Your task to perform on an android device: open wifi settings Image 0: 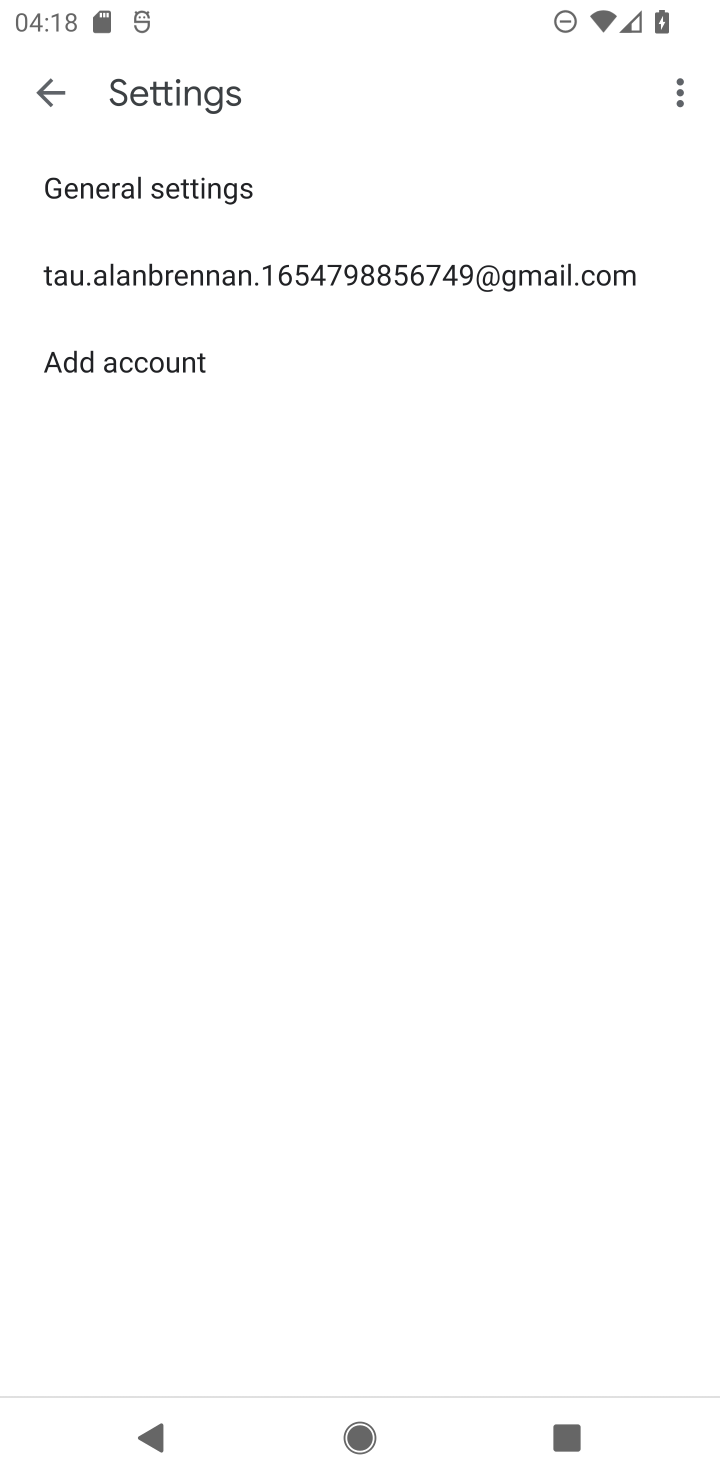
Step 0: press home button
Your task to perform on an android device: open wifi settings Image 1: 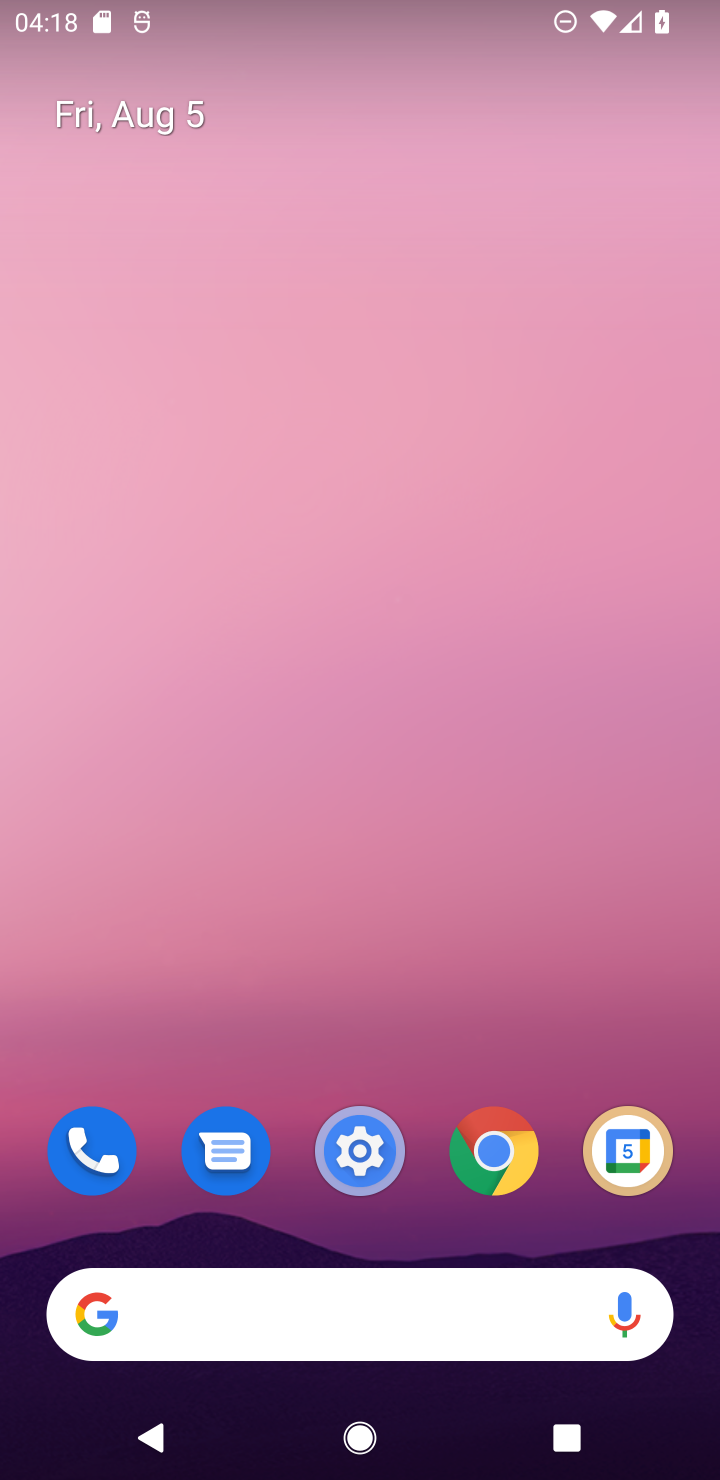
Step 1: click (391, 1131)
Your task to perform on an android device: open wifi settings Image 2: 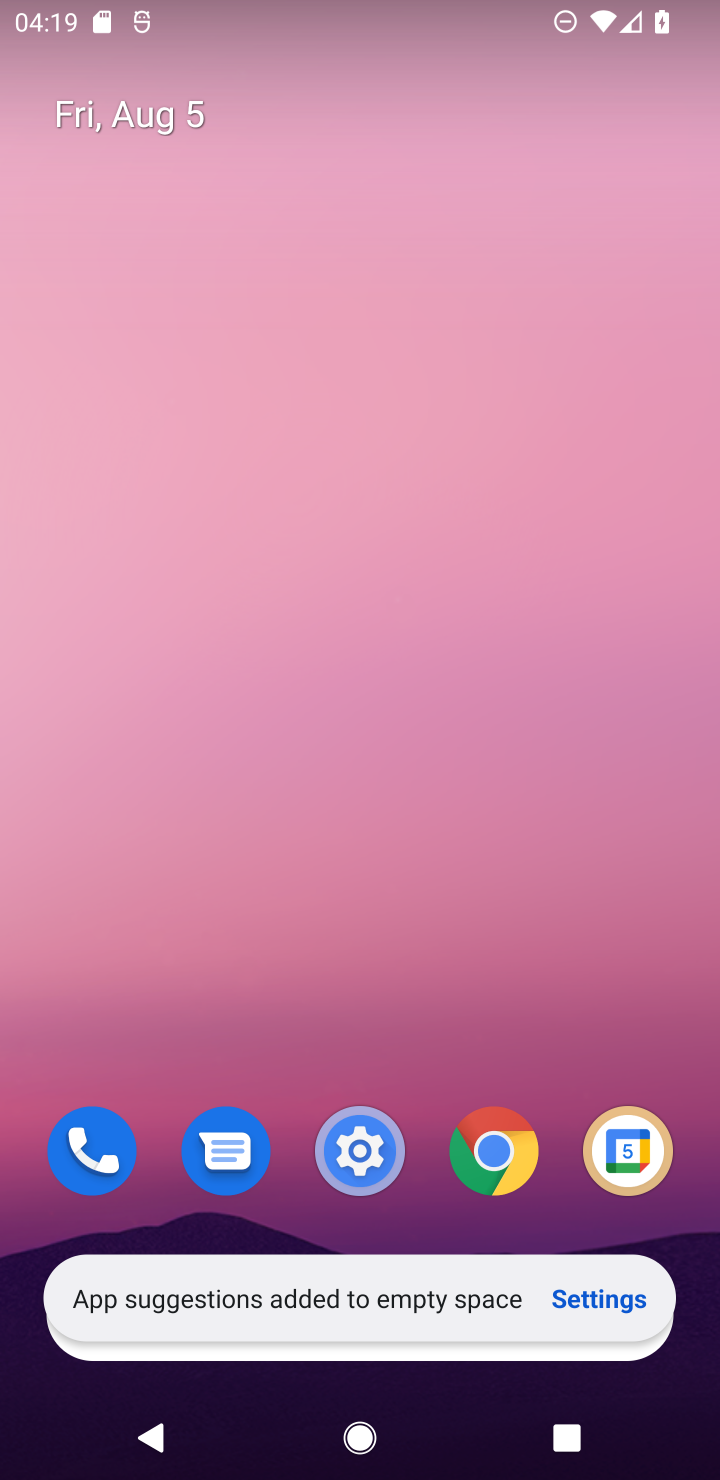
Step 2: click (361, 1141)
Your task to perform on an android device: open wifi settings Image 3: 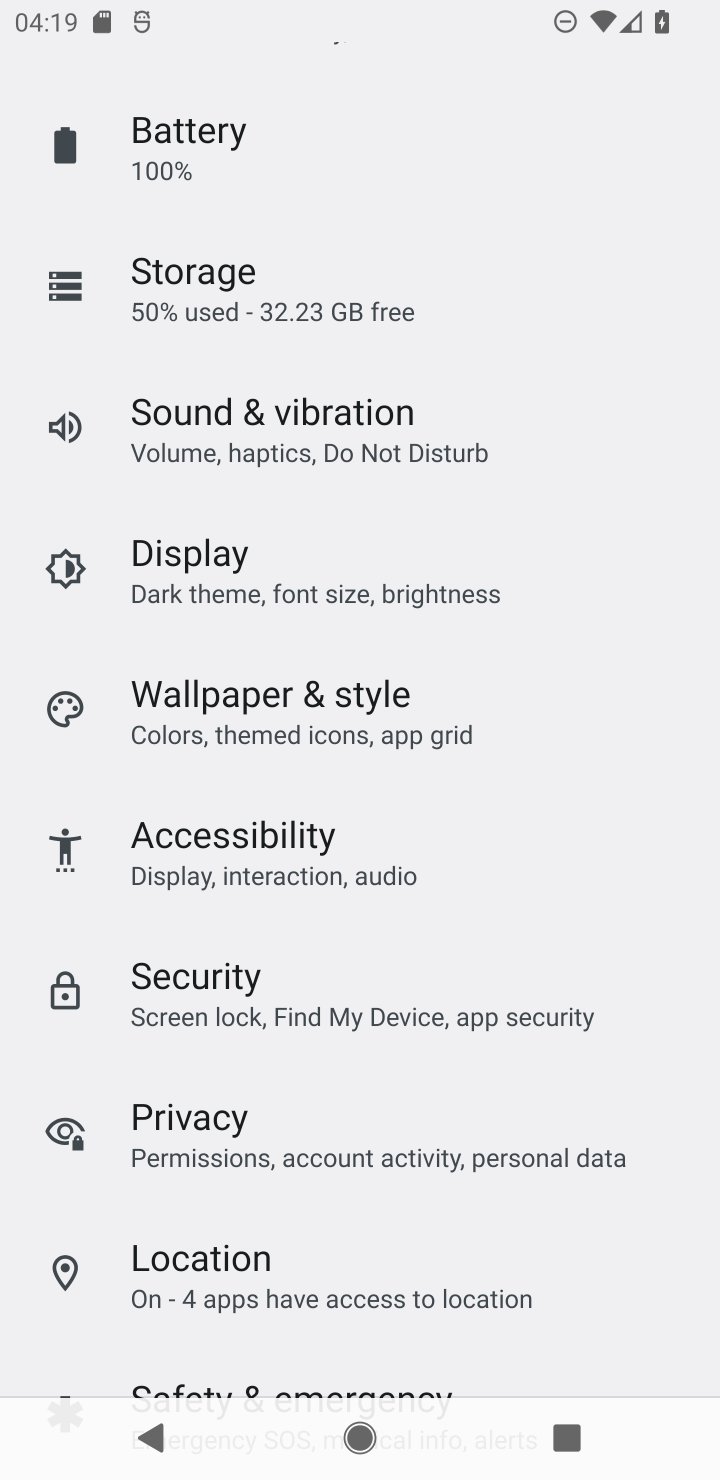
Step 3: drag from (192, 229) to (226, 682)
Your task to perform on an android device: open wifi settings Image 4: 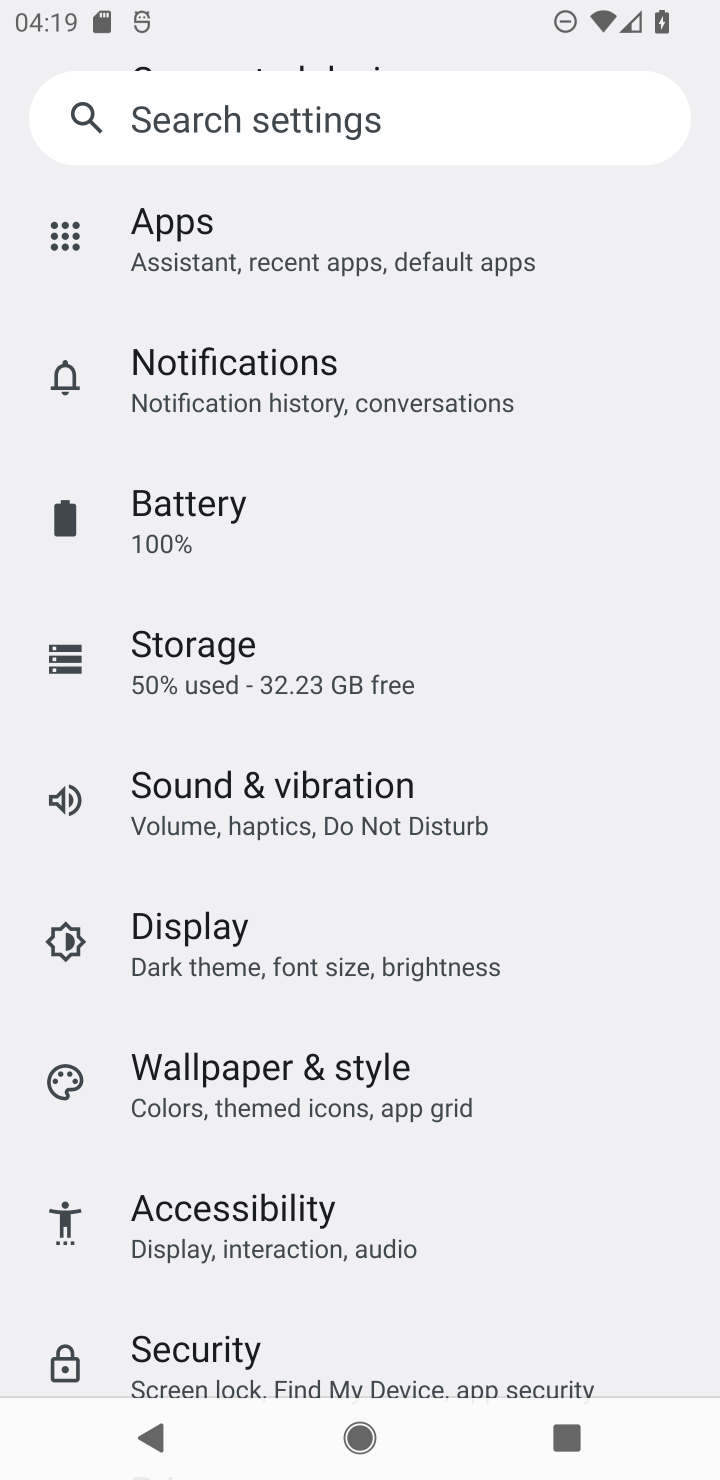
Step 4: drag from (266, 324) to (394, 1072)
Your task to perform on an android device: open wifi settings Image 5: 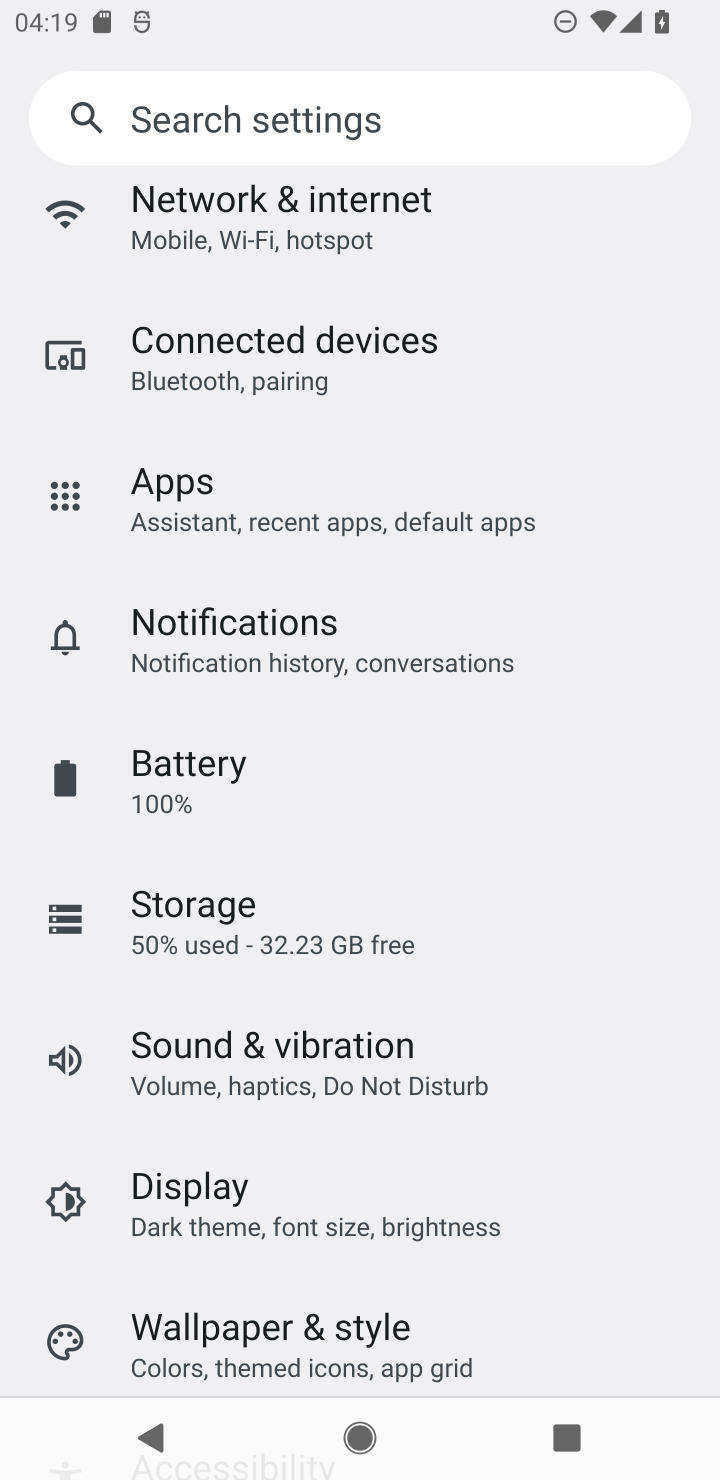
Step 5: click (319, 246)
Your task to perform on an android device: open wifi settings Image 6: 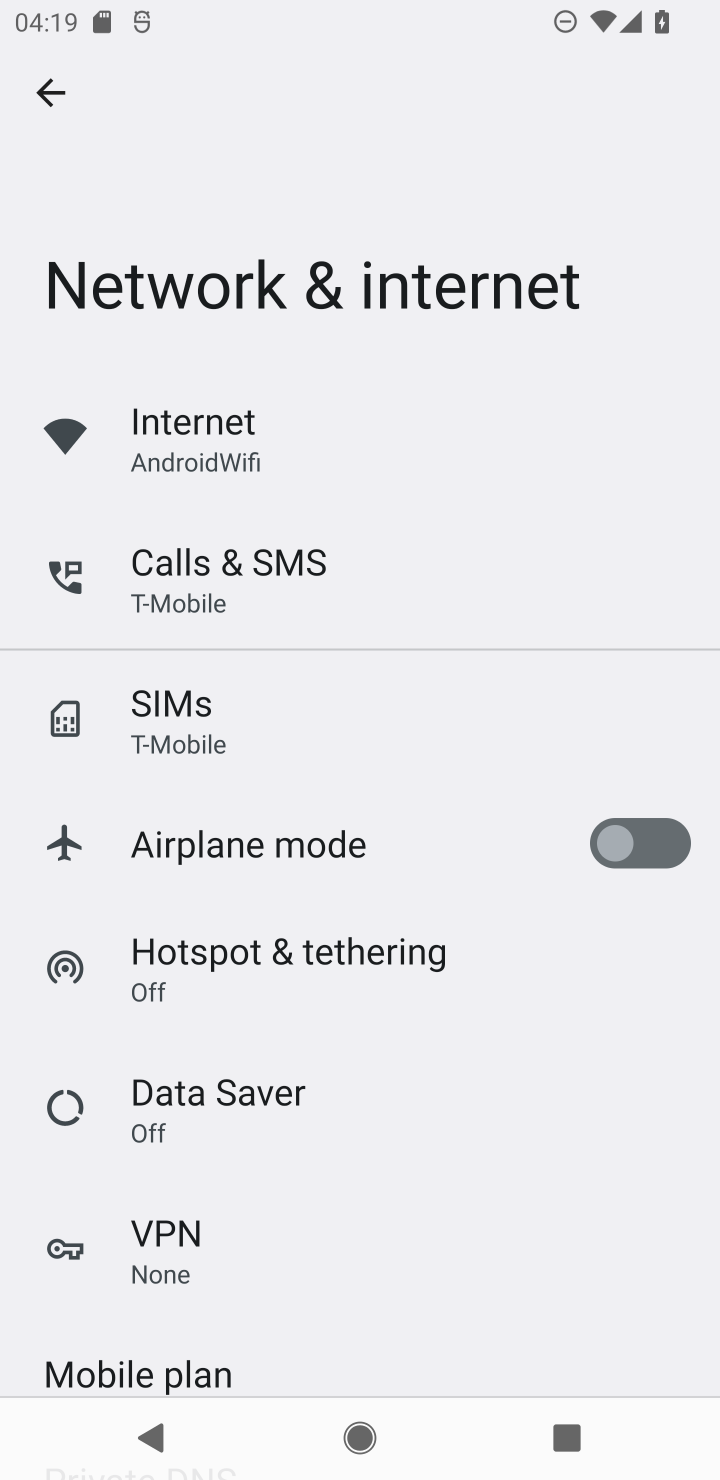
Step 6: click (269, 430)
Your task to perform on an android device: open wifi settings Image 7: 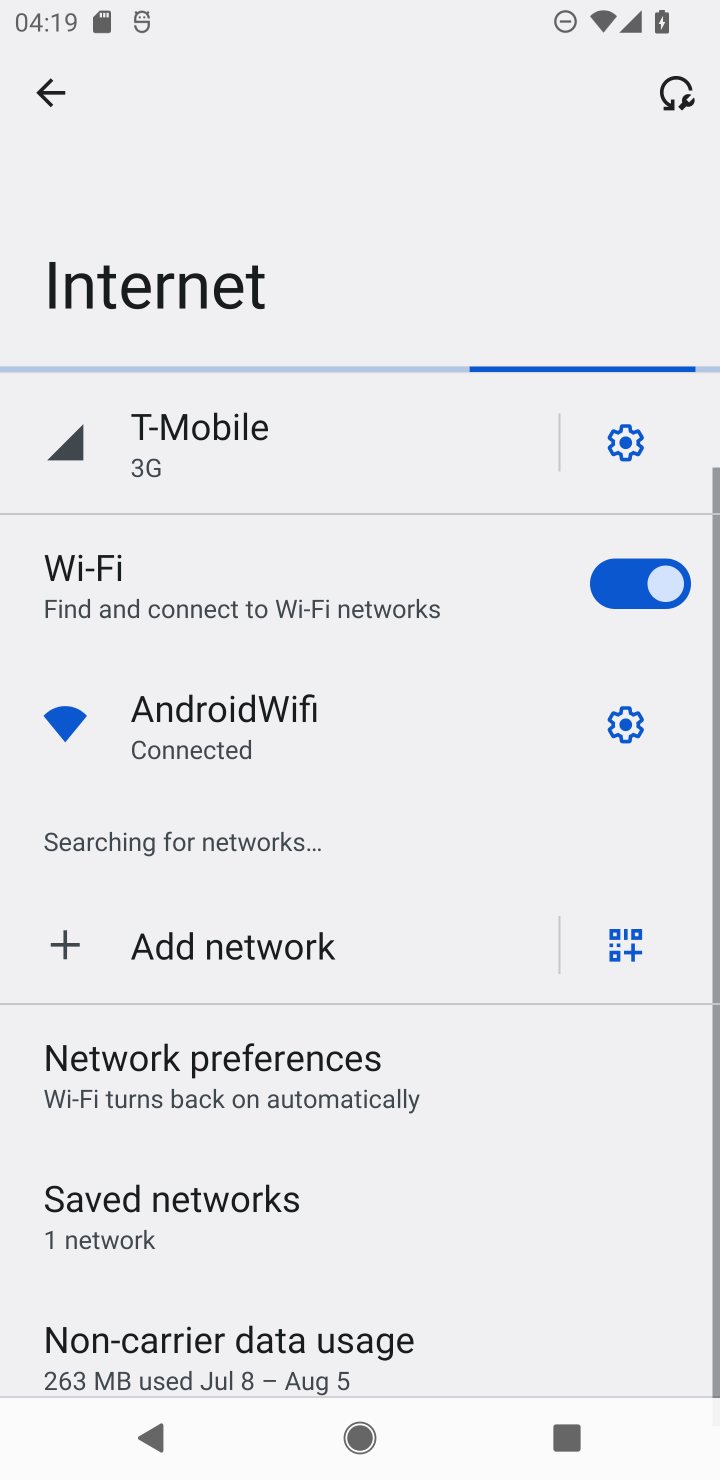
Step 7: click (632, 708)
Your task to perform on an android device: open wifi settings Image 8: 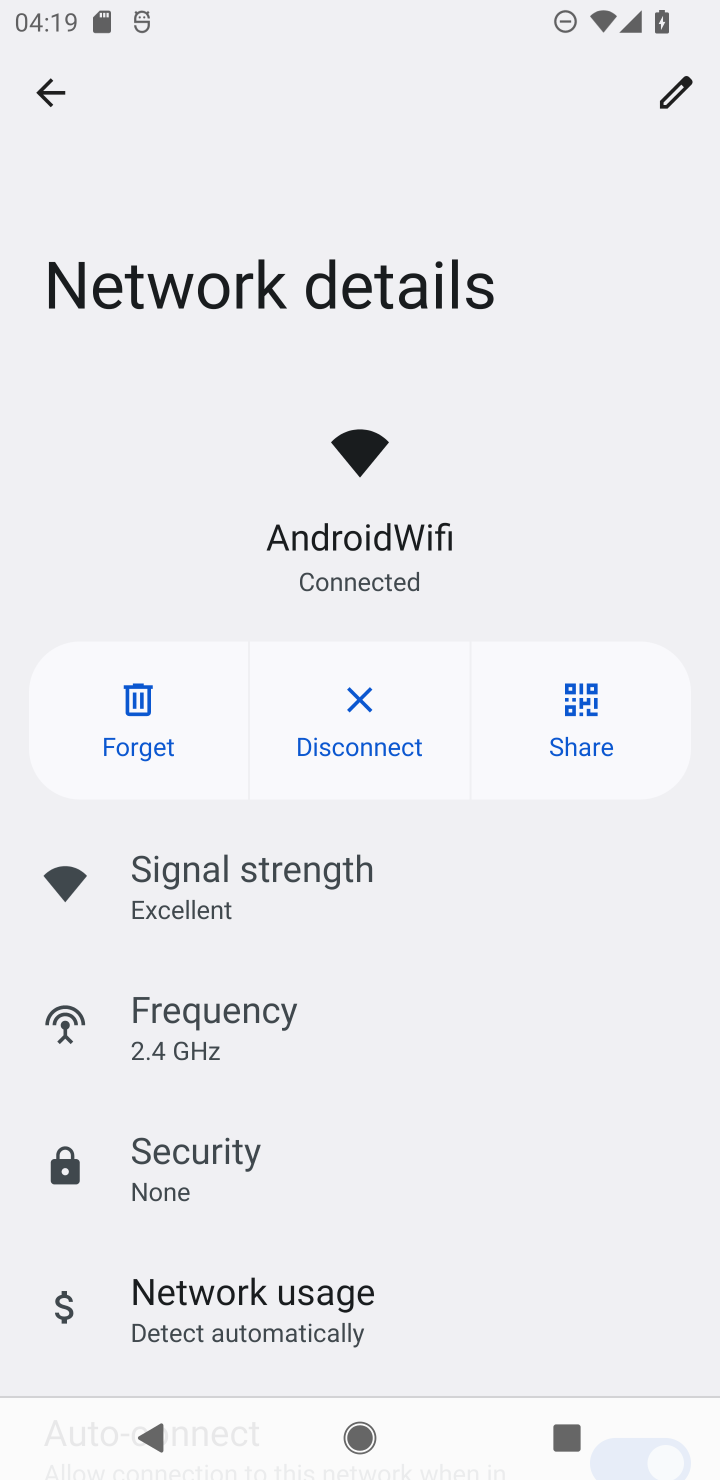
Step 8: task complete